Your task to perform on an android device: Open calendar and show me the first week of next month Image 0: 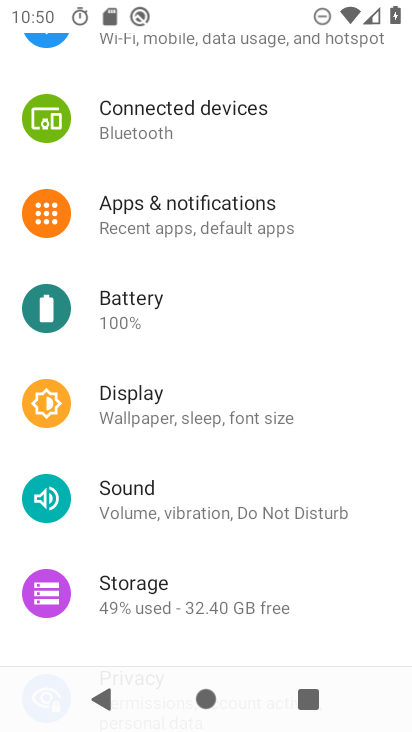
Step 0: press home button
Your task to perform on an android device: Open calendar and show me the first week of next month Image 1: 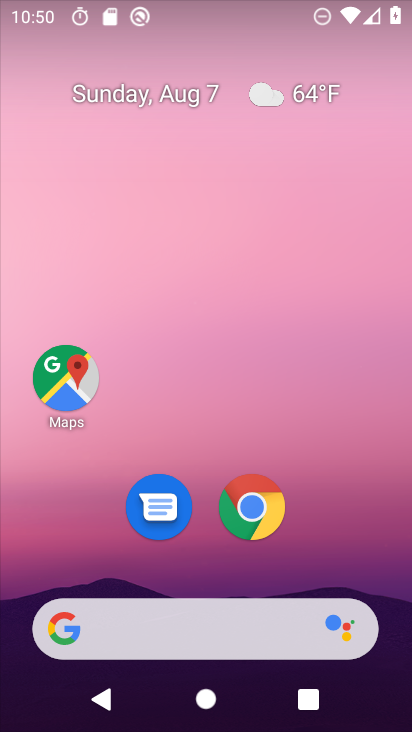
Step 1: drag from (345, 540) to (330, 89)
Your task to perform on an android device: Open calendar and show me the first week of next month Image 2: 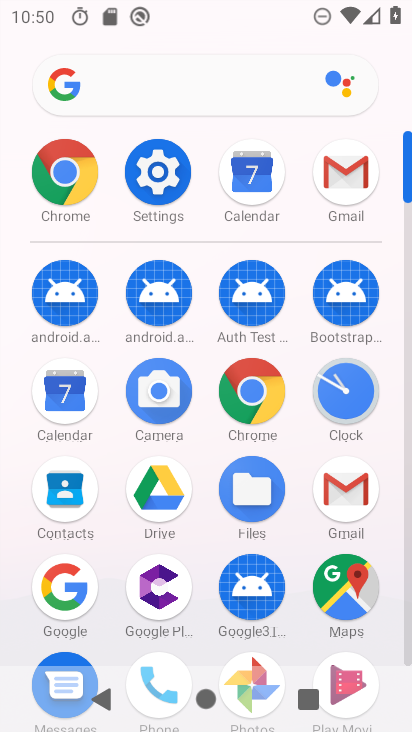
Step 2: click (64, 391)
Your task to perform on an android device: Open calendar and show me the first week of next month Image 3: 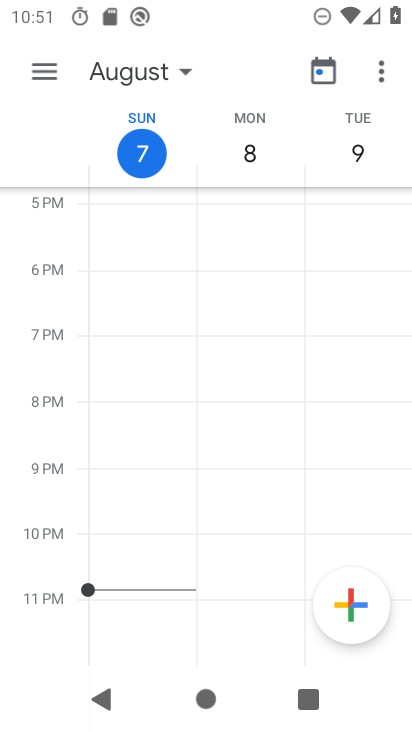
Step 3: click (101, 70)
Your task to perform on an android device: Open calendar and show me the first week of next month Image 4: 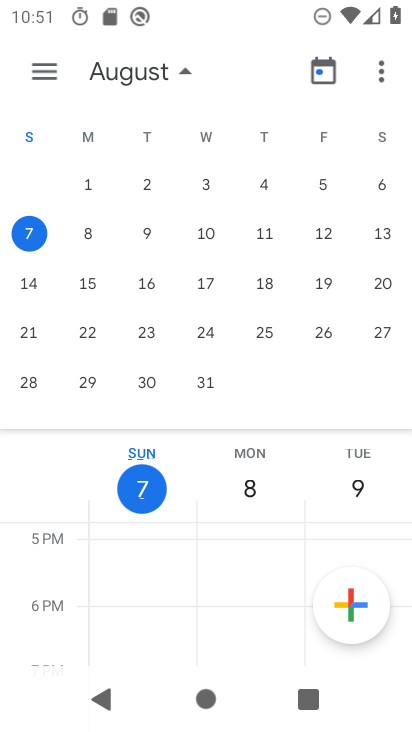
Step 4: drag from (359, 294) to (34, 292)
Your task to perform on an android device: Open calendar and show me the first week of next month Image 5: 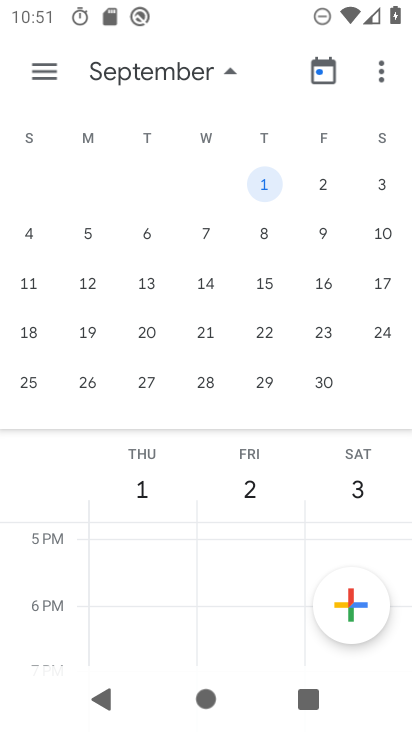
Step 5: click (57, 73)
Your task to perform on an android device: Open calendar and show me the first week of next month Image 6: 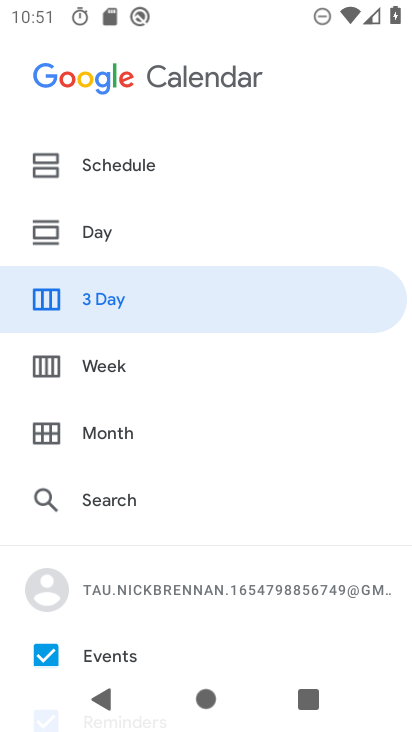
Step 6: click (107, 363)
Your task to perform on an android device: Open calendar and show me the first week of next month Image 7: 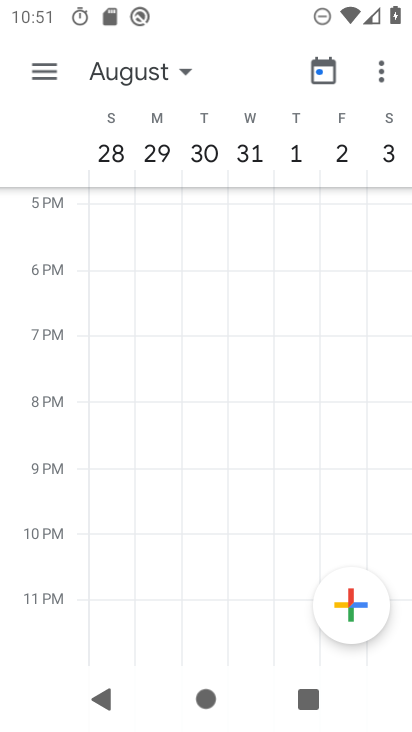
Step 7: click (151, 65)
Your task to perform on an android device: Open calendar and show me the first week of next month Image 8: 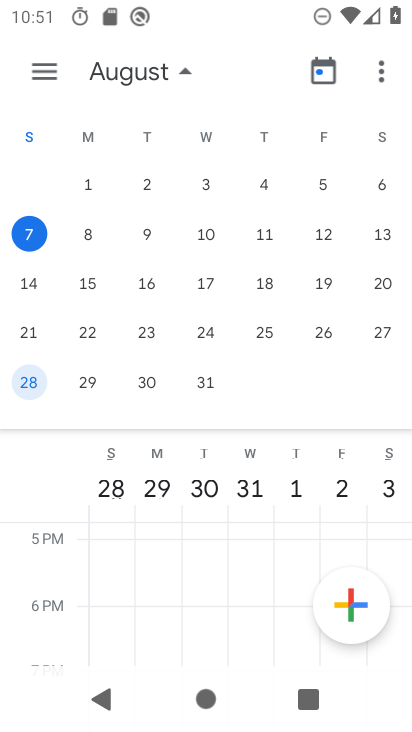
Step 8: drag from (370, 246) to (0, 245)
Your task to perform on an android device: Open calendar and show me the first week of next month Image 9: 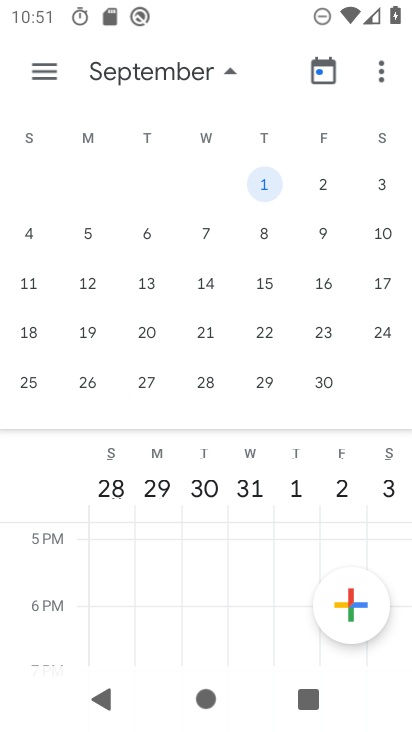
Step 9: click (311, 181)
Your task to perform on an android device: Open calendar and show me the first week of next month Image 10: 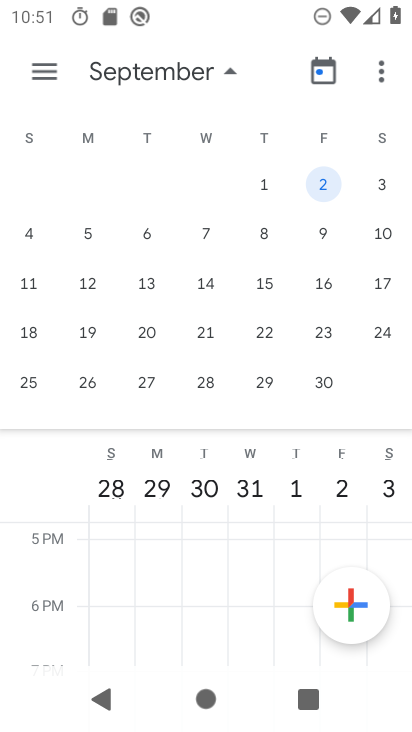
Step 10: click (86, 239)
Your task to perform on an android device: Open calendar and show me the first week of next month Image 11: 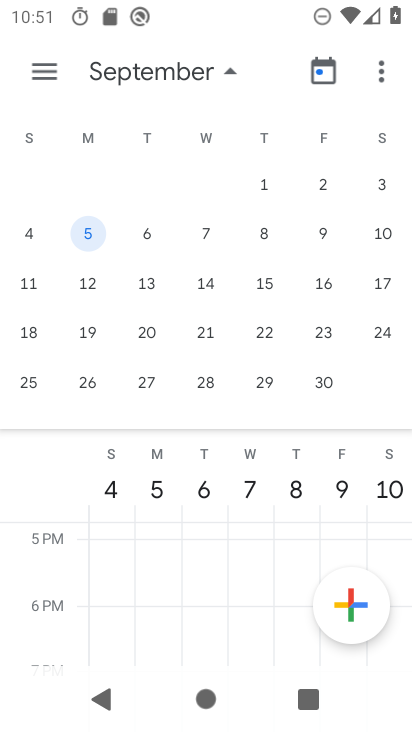
Step 11: task complete